Your task to perform on an android device: change the clock style Image 0: 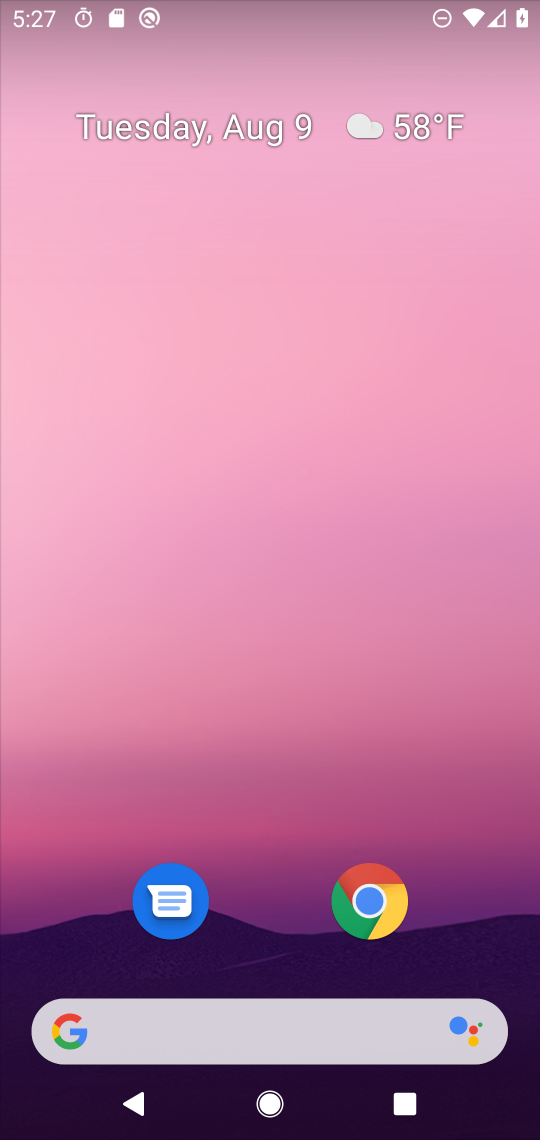
Step 0: drag from (274, 835) to (419, 9)
Your task to perform on an android device: change the clock style Image 1: 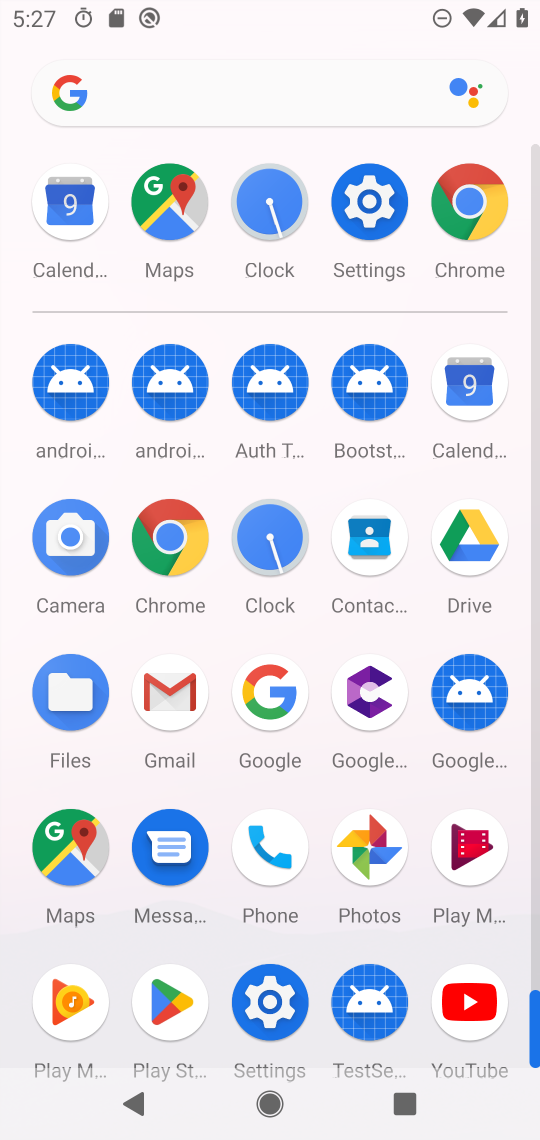
Step 1: click (281, 535)
Your task to perform on an android device: change the clock style Image 2: 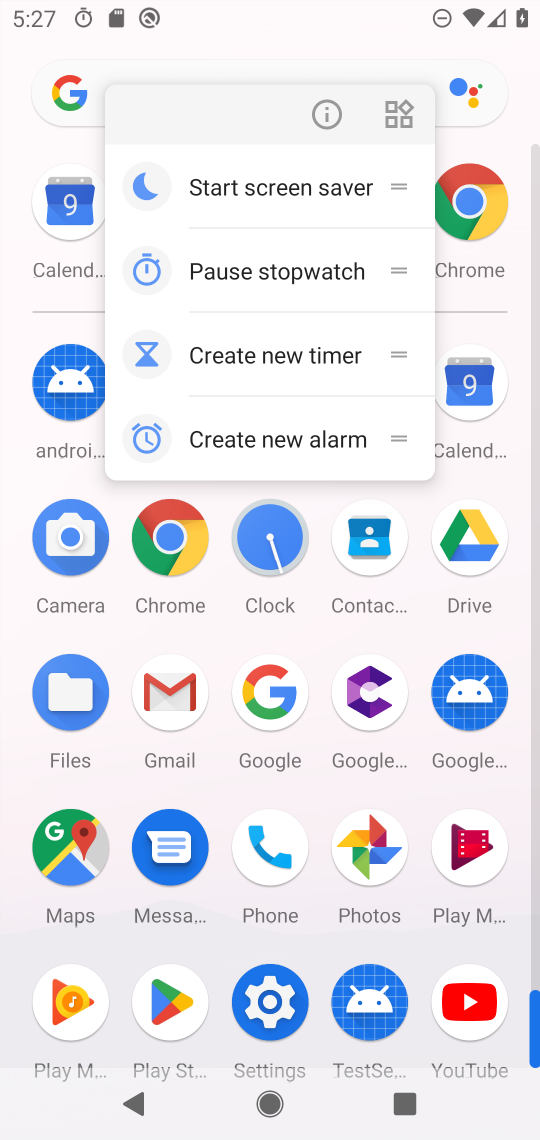
Step 2: click (84, 44)
Your task to perform on an android device: change the clock style Image 3: 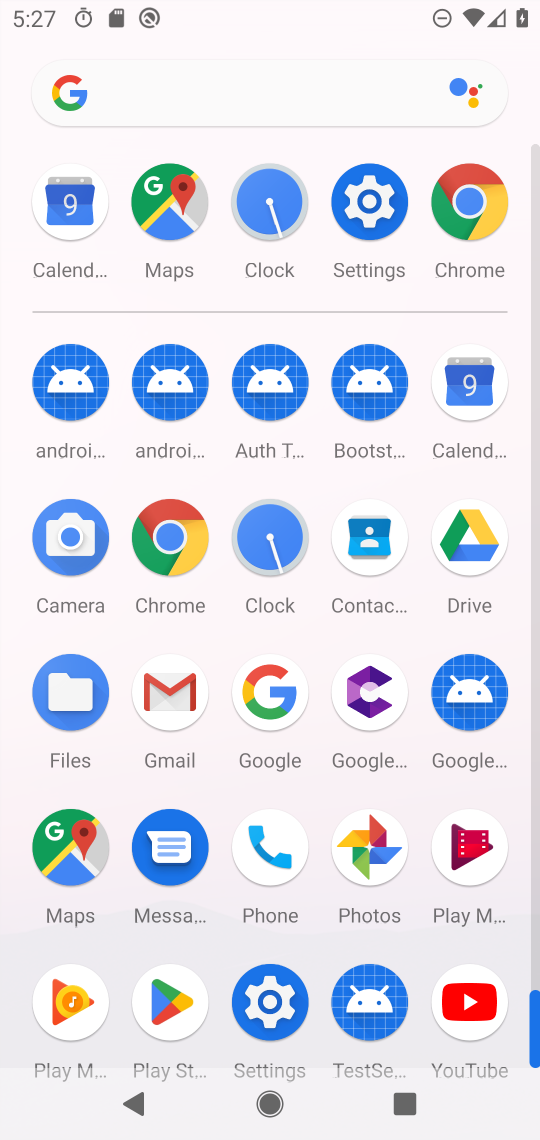
Step 3: click (262, 527)
Your task to perform on an android device: change the clock style Image 4: 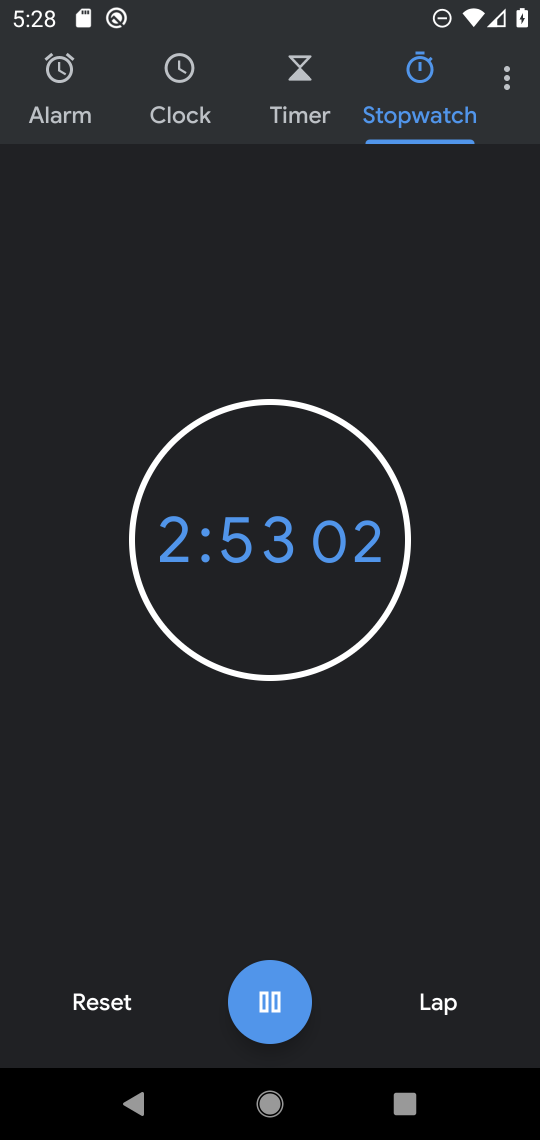
Step 4: click (507, 69)
Your task to perform on an android device: change the clock style Image 5: 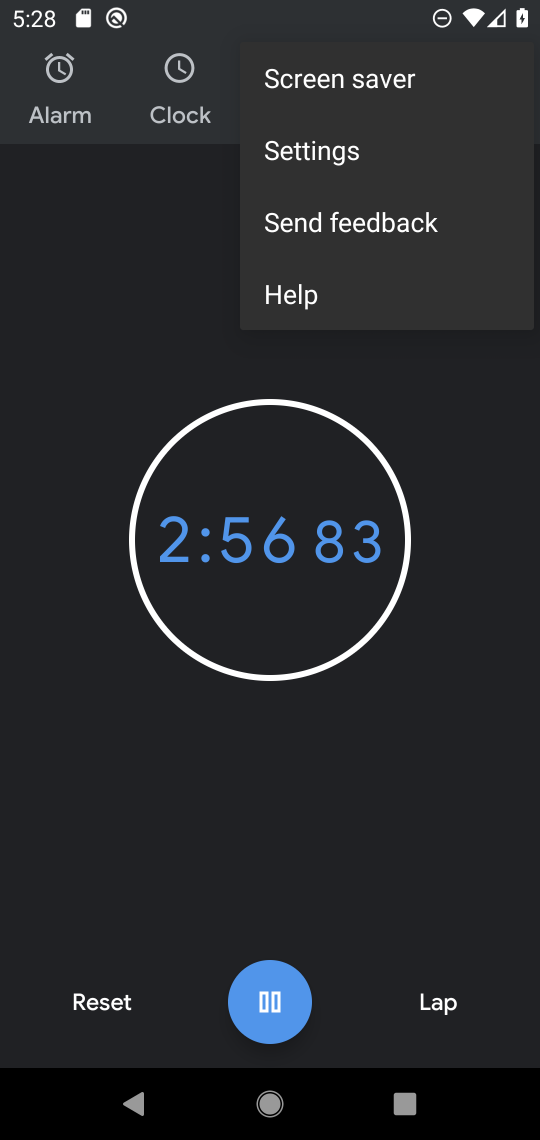
Step 5: click (321, 153)
Your task to perform on an android device: change the clock style Image 6: 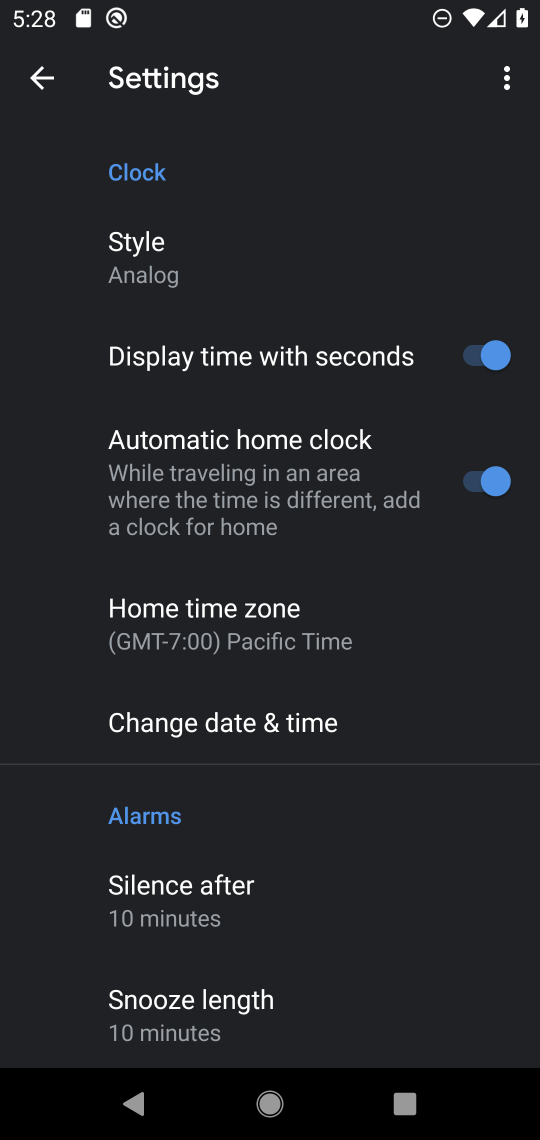
Step 6: click (181, 279)
Your task to perform on an android device: change the clock style Image 7: 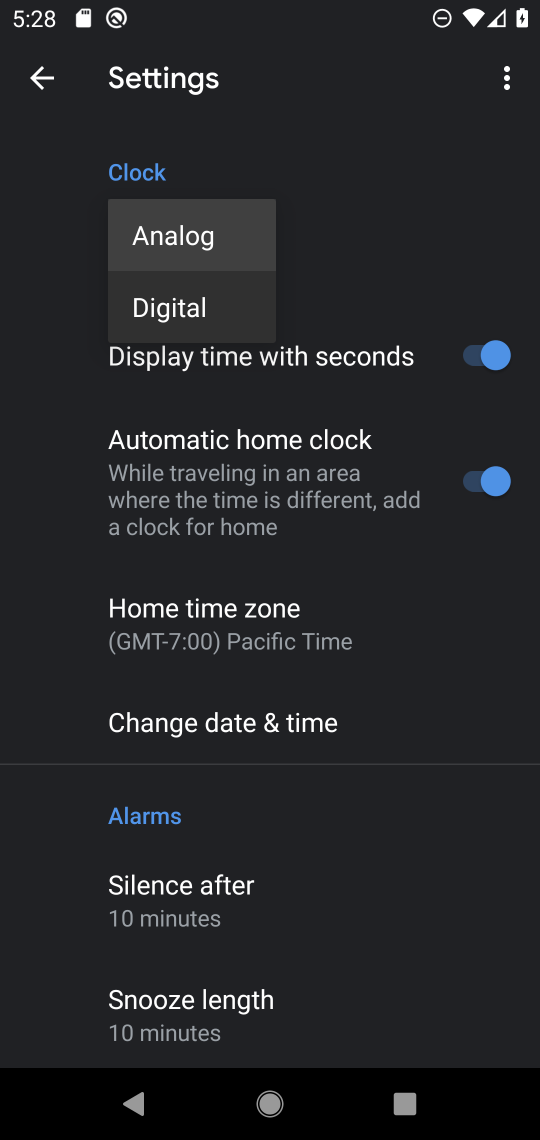
Step 7: click (198, 303)
Your task to perform on an android device: change the clock style Image 8: 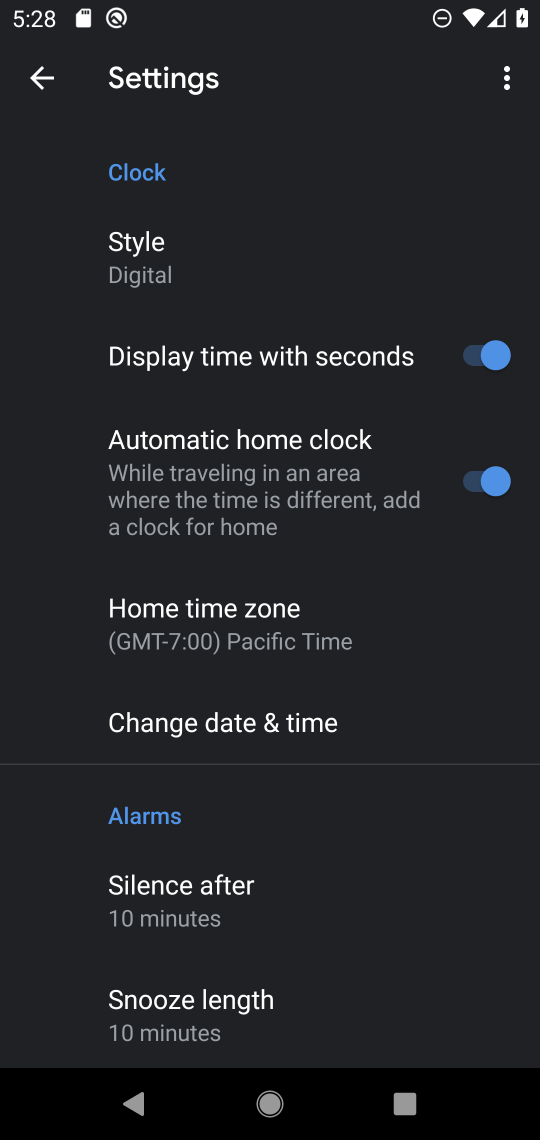
Step 8: task complete